Your task to perform on an android device: turn on location history Image 0: 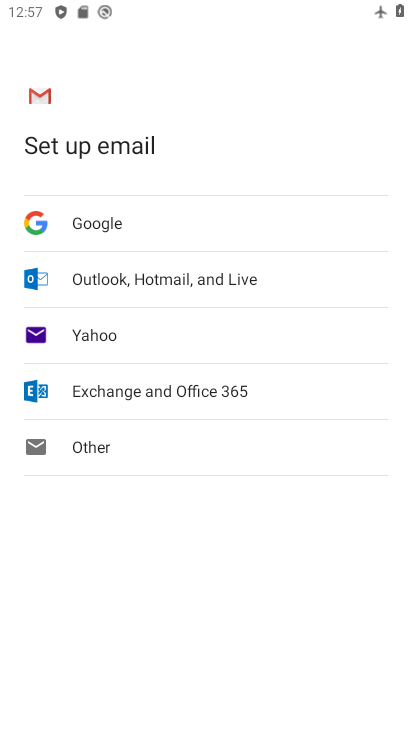
Step 0: press home button
Your task to perform on an android device: turn on location history Image 1: 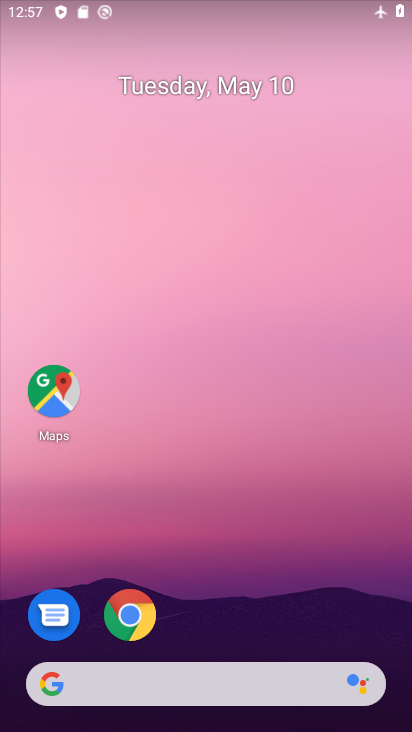
Step 1: drag from (215, 609) to (339, 70)
Your task to perform on an android device: turn on location history Image 2: 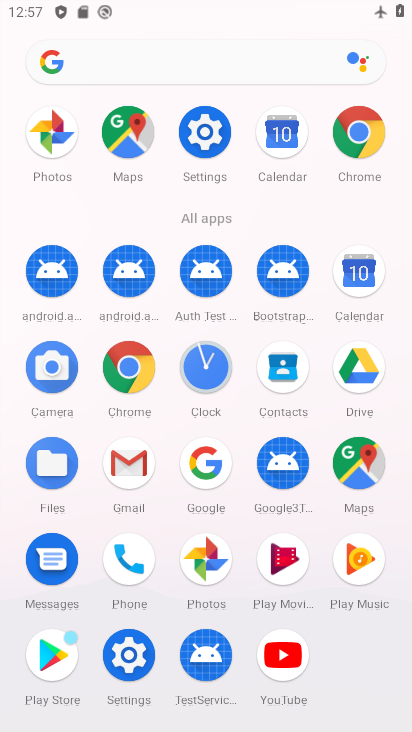
Step 2: click (140, 673)
Your task to perform on an android device: turn on location history Image 3: 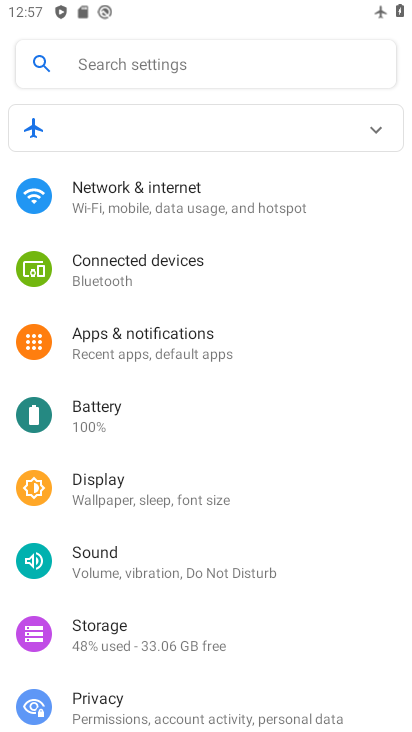
Step 3: drag from (200, 636) to (232, 298)
Your task to perform on an android device: turn on location history Image 4: 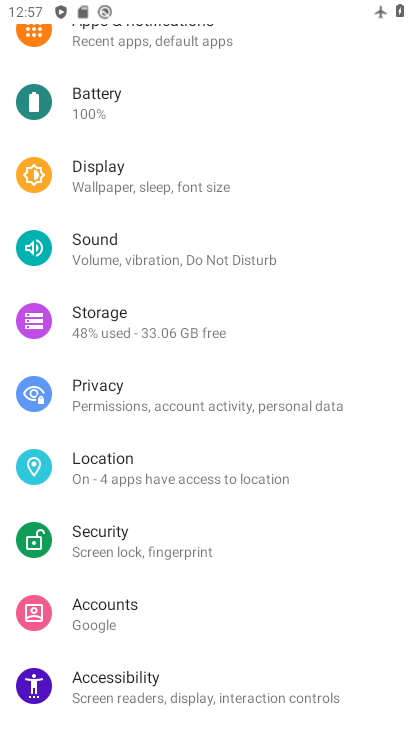
Step 4: click (162, 484)
Your task to perform on an android device: turn on location history Image 5: 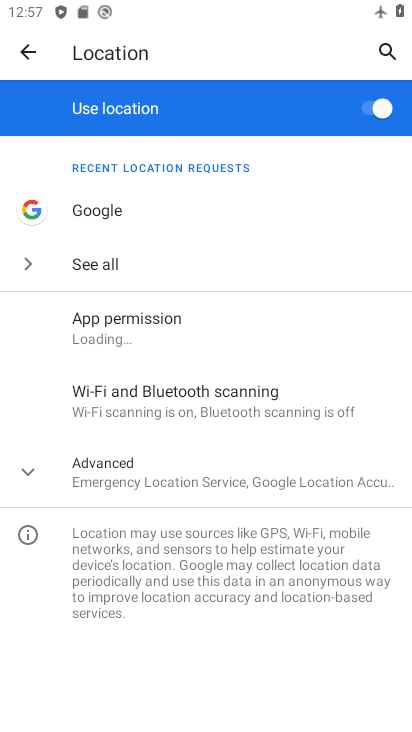
Step 5: click (188, 481)
Your task to perform on an android device: turn on location history Image 6: 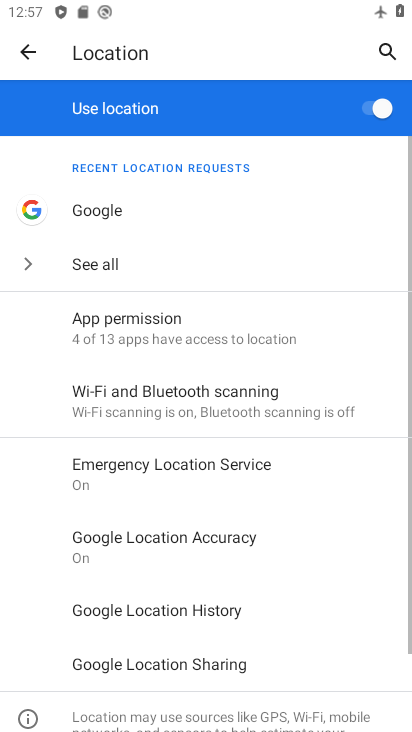
Step 6: click (178, 617)
Your task to perform on an android device: turn on location history Image 7: 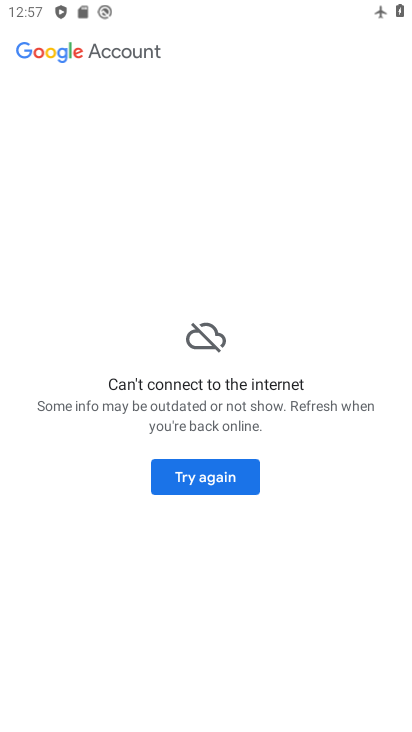
Step 7: click (193, 482)
Your task to perform on an android device: turn on location history Image 8: 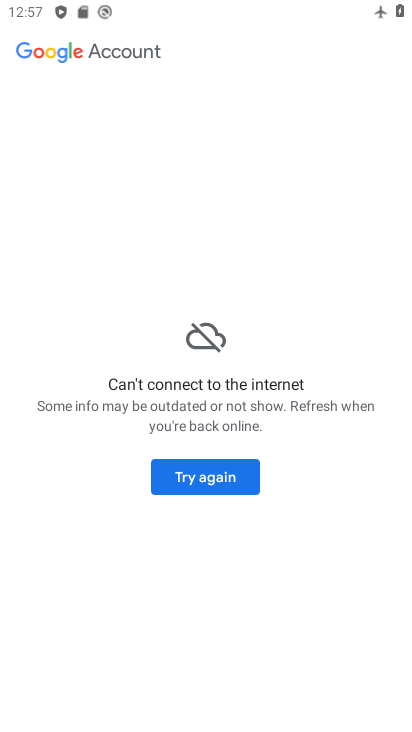
Step 8: task complete